Your task to perform on an android device: Go to Maps Image 0: 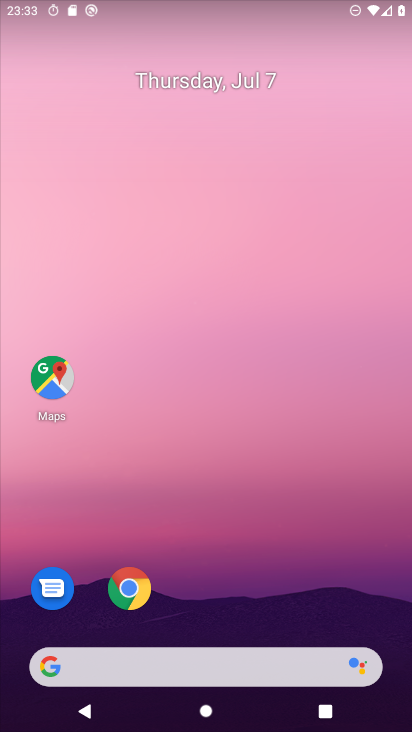
Step 0: drag from (271, 484) to (282, 94)
Your task to perform on an android device: Go to Maps Image 1: 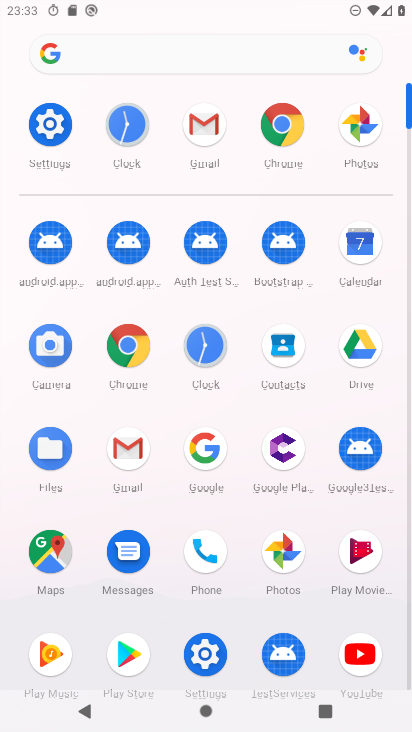
Step 1: click (54, 554)
Your task to perform on an android device: Go to Maps Image 2: 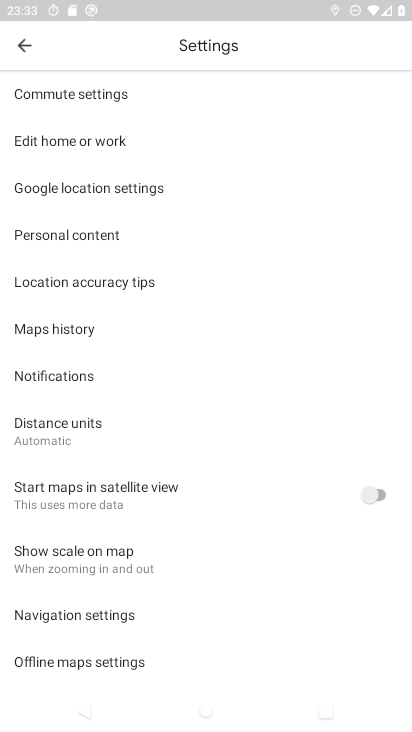
Step 2: click (22, 43)
Your task to perform on an android device: Go to Maps Image 3: 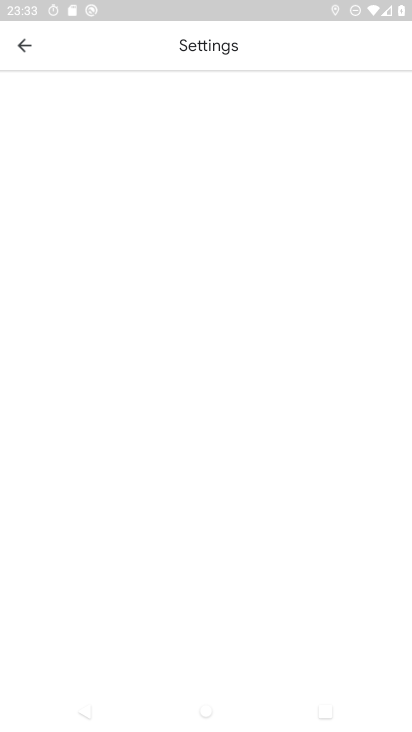
Step 3: click (19, 44)
Your task to perform on an android device: Go to Maps Image 4: 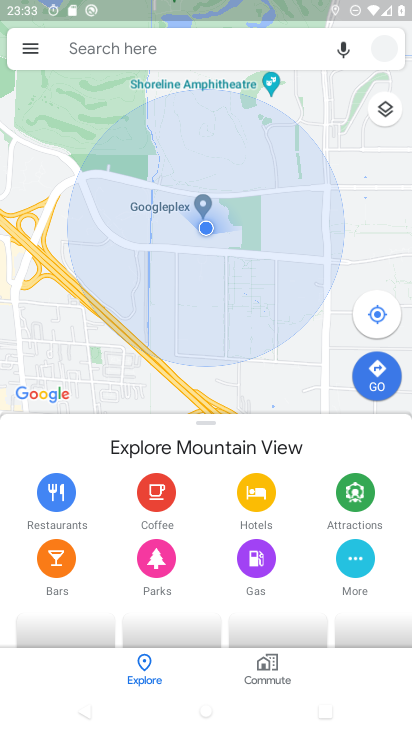
Step 4: task complete